Your task to perform on an android device: open a bookmark in the chrome app Image 0: 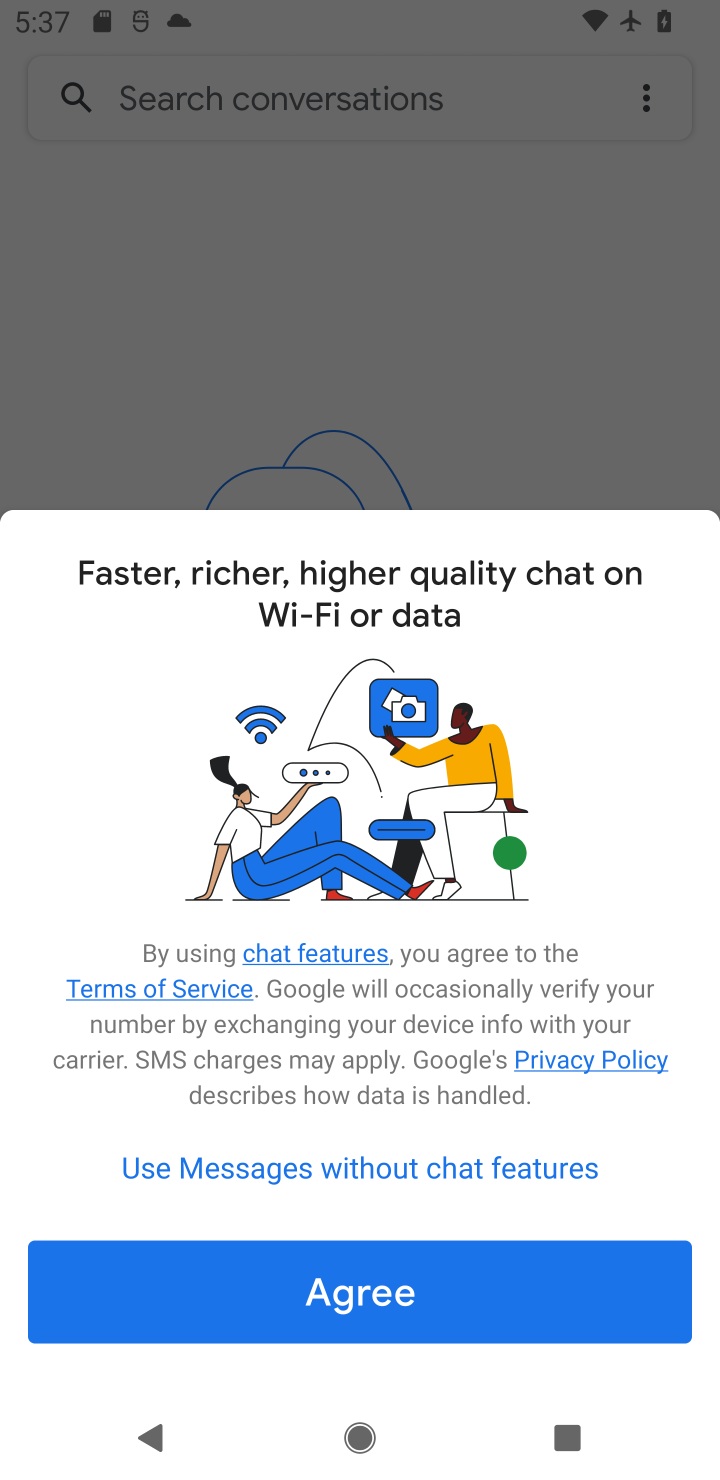
Step 0: press home button
Your task to perform on an android device: open a bookmark in the chrome app Image 1: 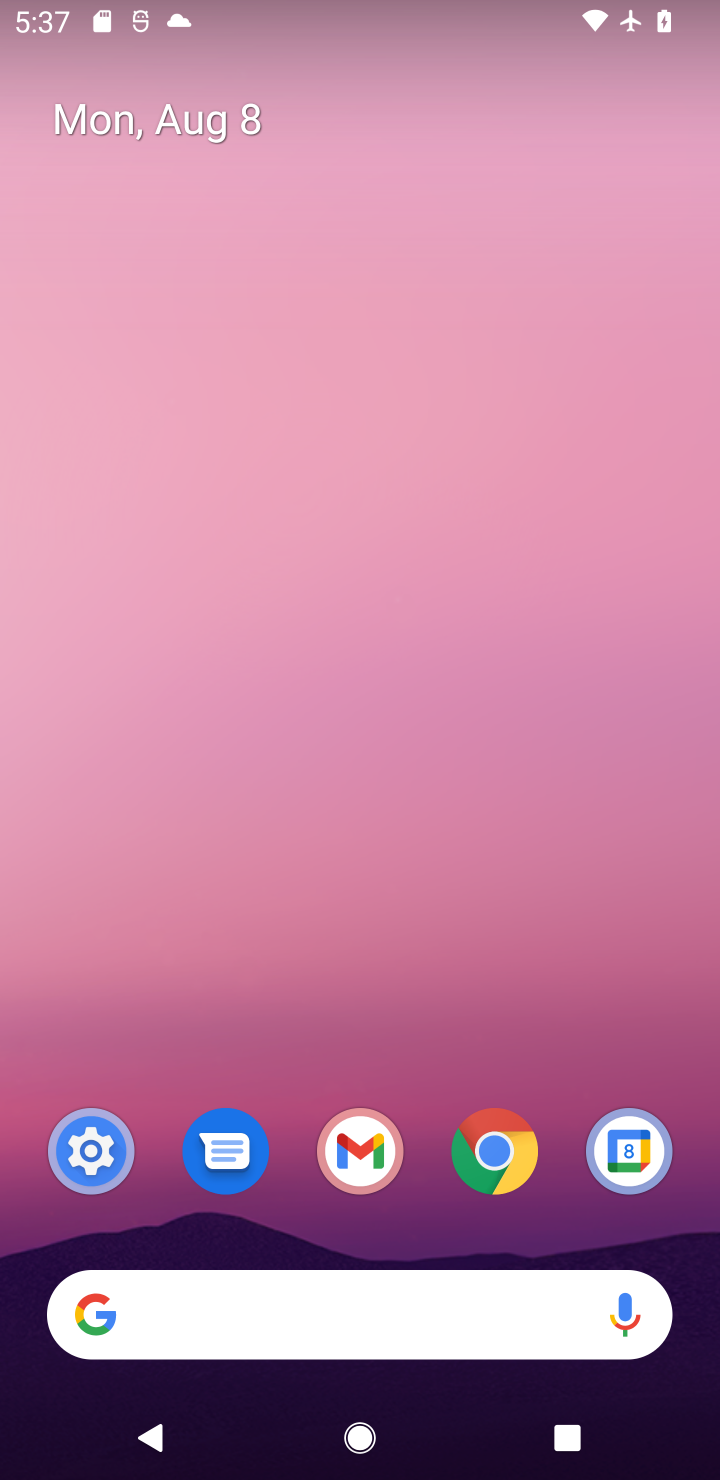
Step 1: click (496, 1131)
Your task to perform on an android device: open a bookmark in the chrome app Image 2: 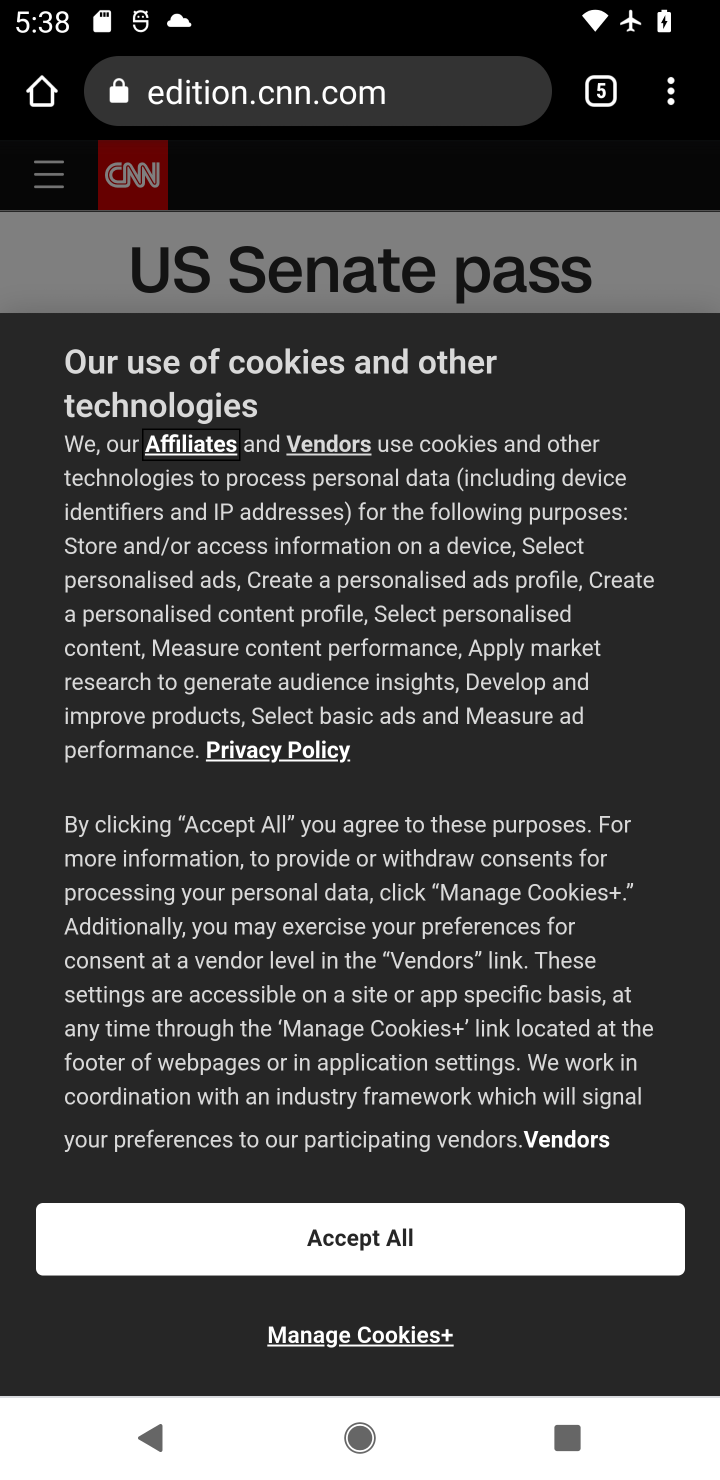
Step 2: click (657, 96)
Your task to perform on an android device: open a bookmark in the chrome app Image 3: 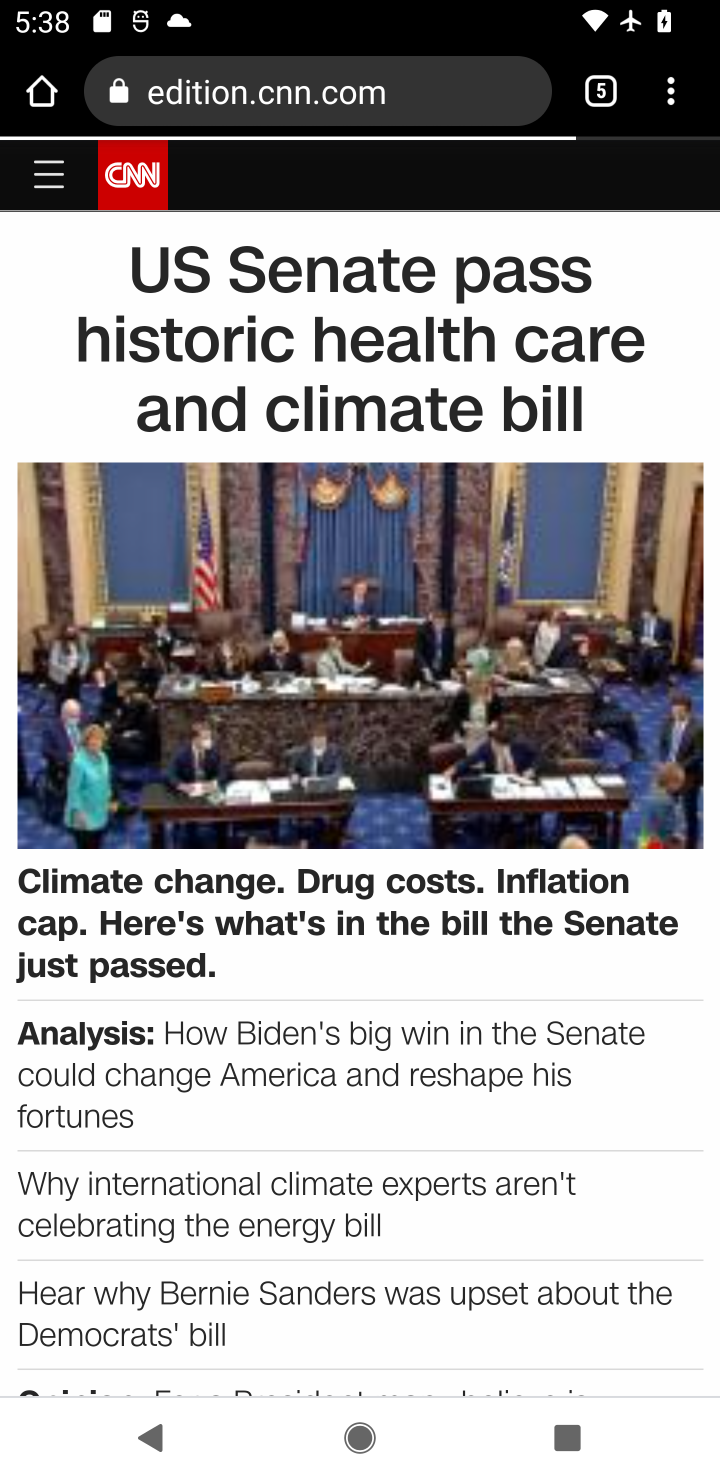
Step 3: task complete